Your task to perform on an android device: Open calendar and show me the fourth week of next month Image 0: 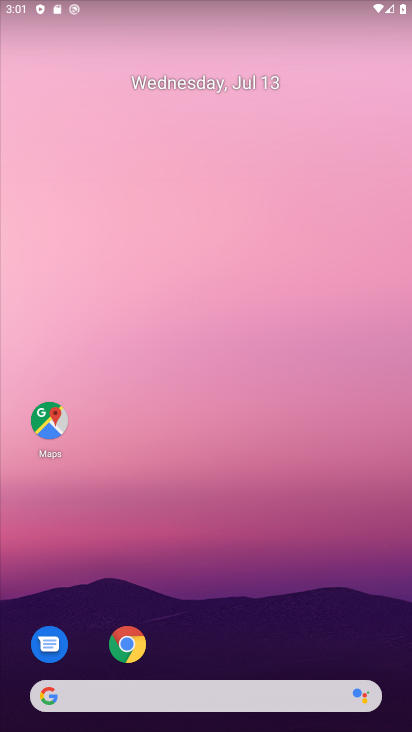
Step 0: drag from (232, 636) to (195, 54)
Your task to perform on an android device: Open calendar and show me the fourth week of next month Image 1: 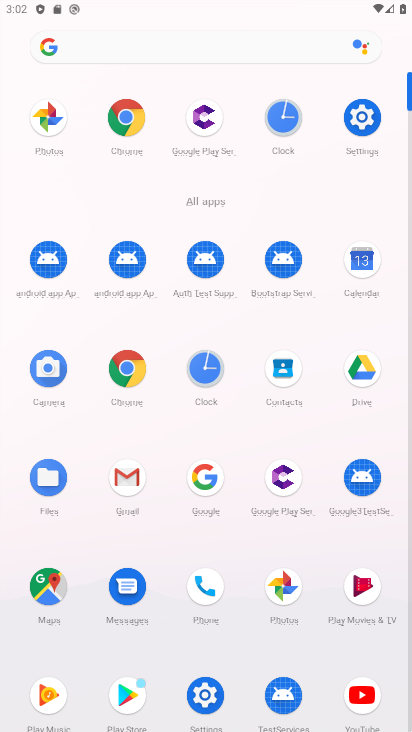
Step 1: click (373, 268)
Your task to perform on an android device: Open calendar and show me the fourth week of next month Image 2: 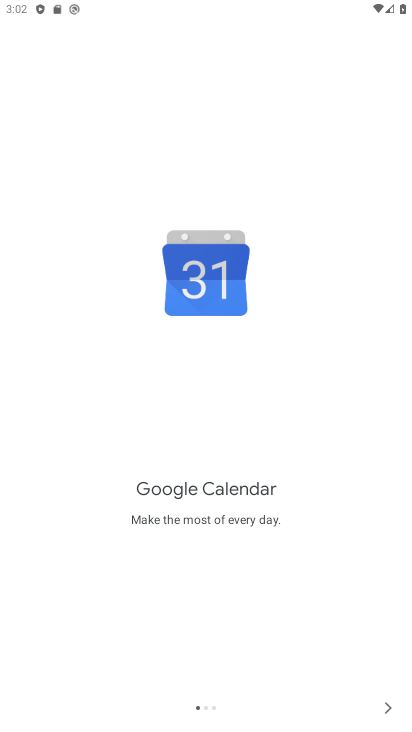
Step 2: click (388, 705)
Your task to perform on an android device: Open calendar and show me the fourth week of next month Image 3: 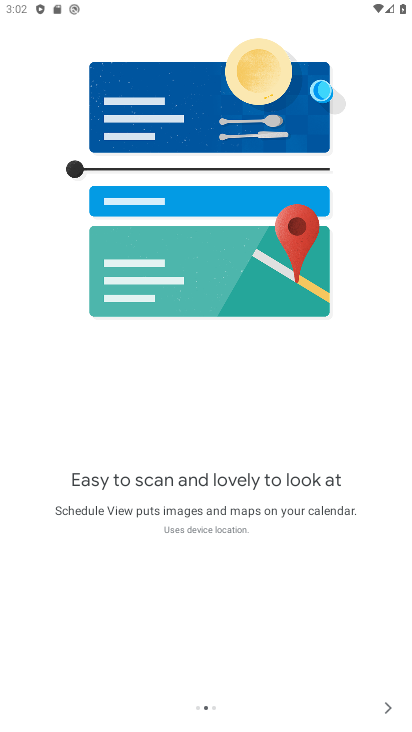
Step 3: click (387, 708)
Your task to perform on an android device: Open calendar and show me the fourth week of next month Image 4: 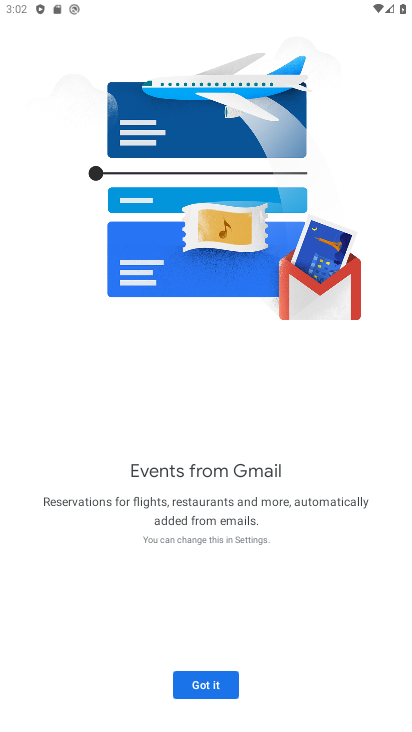
Step 4: click (195, 690)
Your task to perform on an android device: Open calendar and show me the fourth week of next month Image 5: 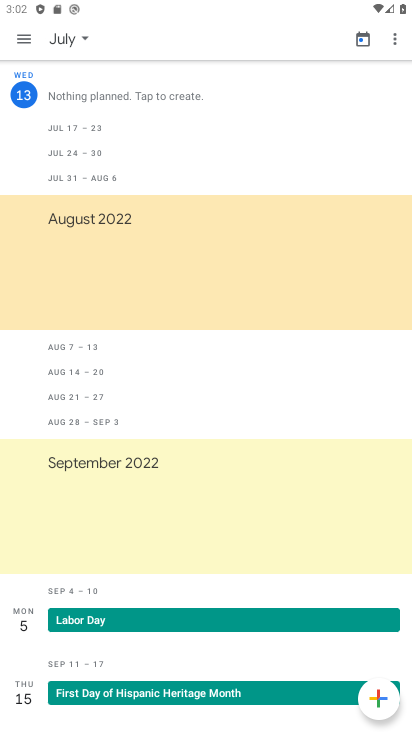
Step 5: click (19, 39)
Your task to perform on an android device: Open calendar and show me the fourth week of next month Image 6: 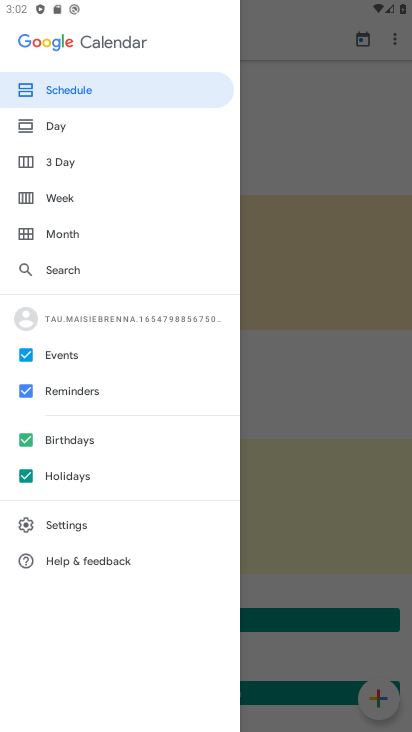
Step 6: click (67, 198)
Your task to perform on an android device: Open calendar and show me the fourth week of next month Image 7: 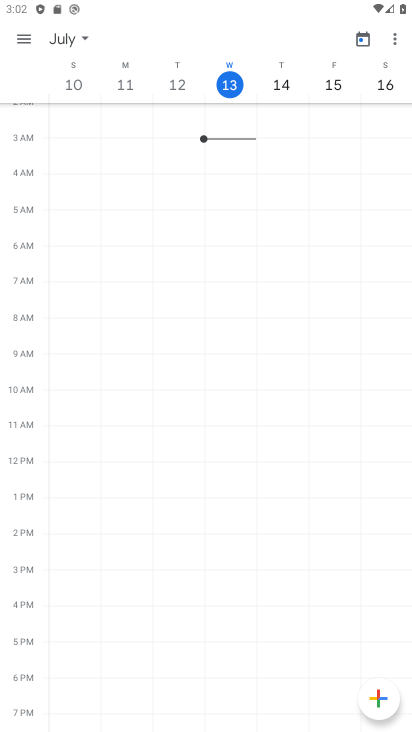
Step 7: click (82, 32)
Your task to perform on an android device: Open calendar and show me the fourth week of next month Image 8: 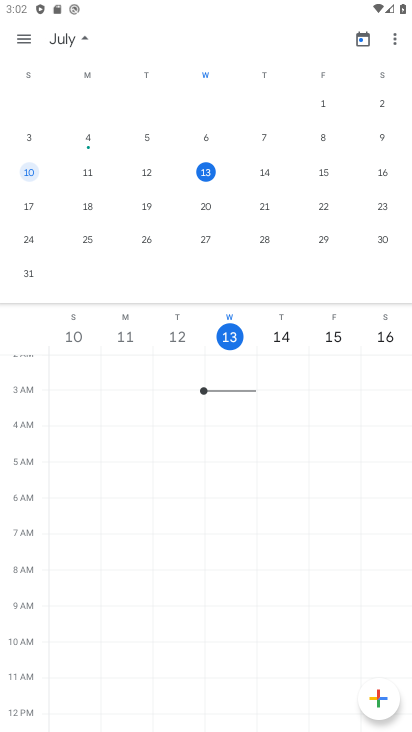
Step 8: drag from (395, 192) to (18, 180)
Your task to perform on an android device: Open calendar and show me the fourth week of next month Image 9: 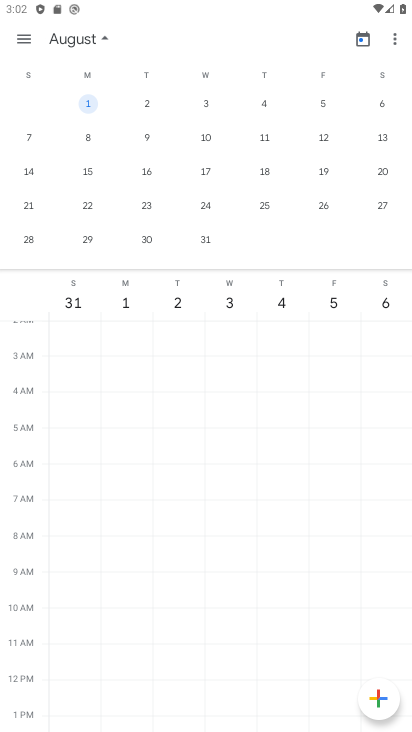
Step 9: click (256, 205)
Your task to perform on an android device: Open calendar and show me the fourth week of next month Image 10: 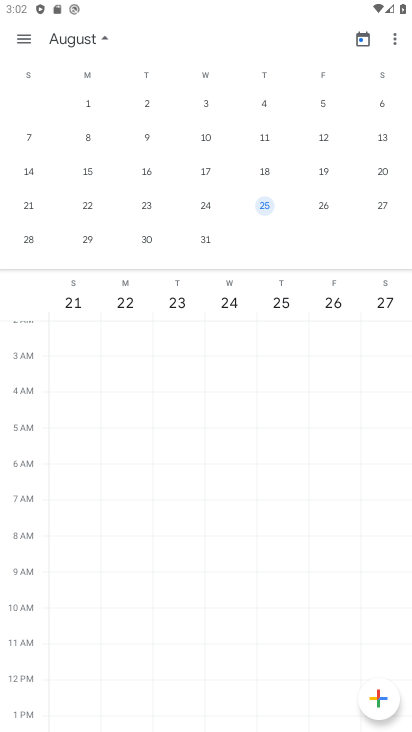
Step 10: task complete